Your task to perform on an android device: turn smart compose on in the gmail app Image 0: 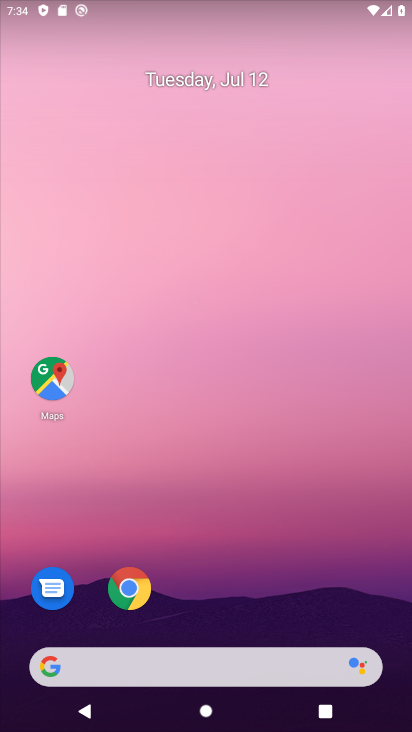
Step 0: drag from (200, 600) to (215, 102)
Your task to perform on an android device: turn smart compose on in the gmail app Image 1: 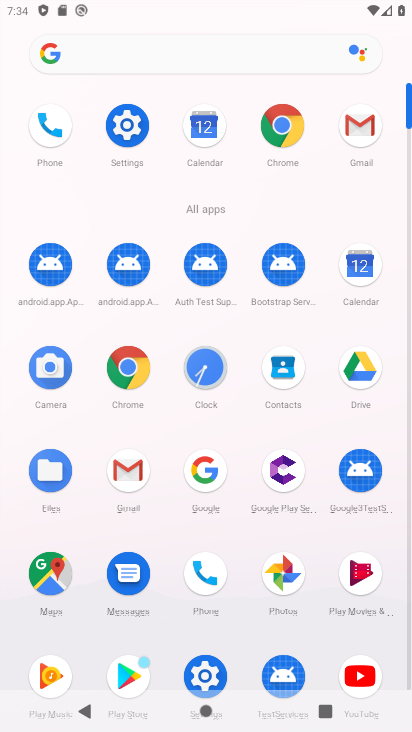
Step 1: click (352, 144)
Your task to perform on an android device: turn smart compose on in the gmail app Image 2: 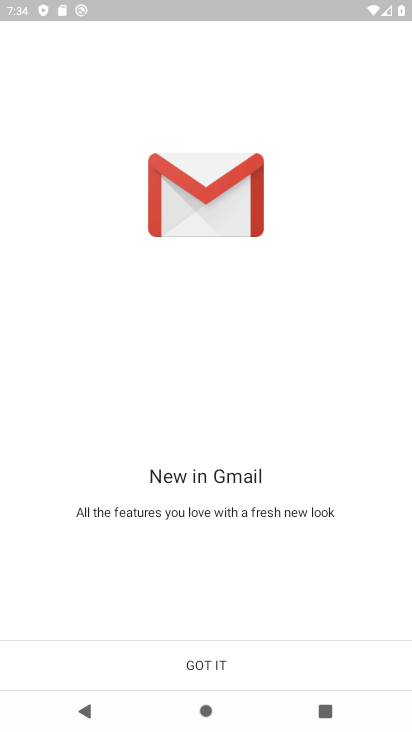
Step 2: click (193, 670)
Your task to perform on an android device: turn smart compose on in the gmail app Image 3: 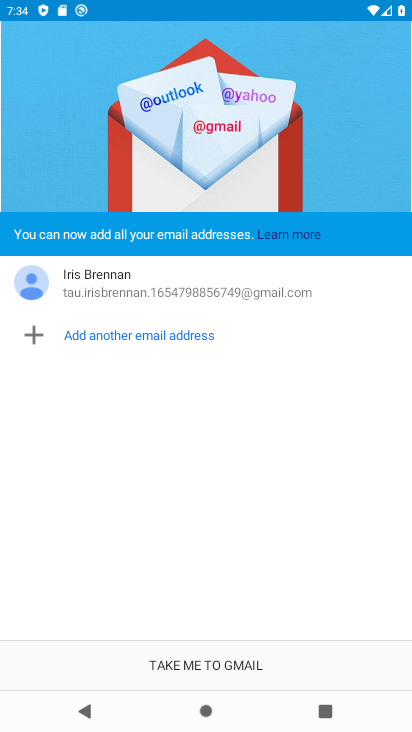
Step 3: click (250, 668)
Your task to perform on an android device: turn smart compose on in the gmail app Image 4: 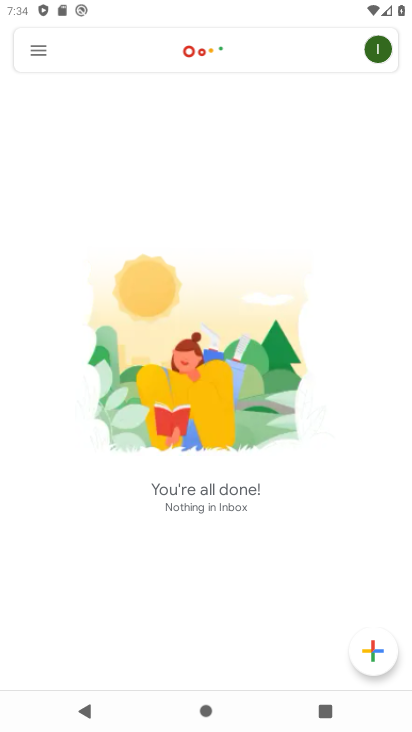
Step 4: click (50, 48)
Your task to perform on an android device: turn smart compose on in the gmail app Image 5: 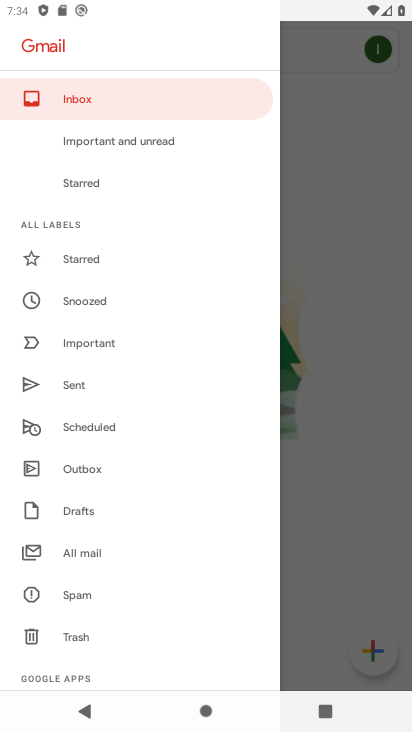
Step 5: drag from (136, 643) to (190, 186)
Your task to perform on an android device: turn smart compose on in the gmail app Image 6: 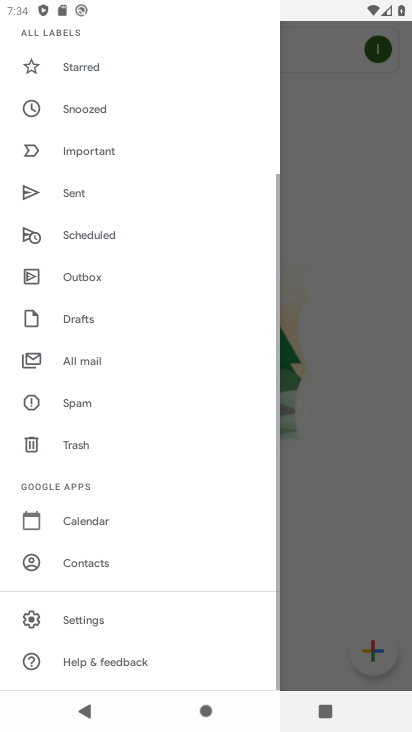
Step 6: click (90, 625)
Your task to perform on an android device: turn smart compose on in the gmail app Image 7: 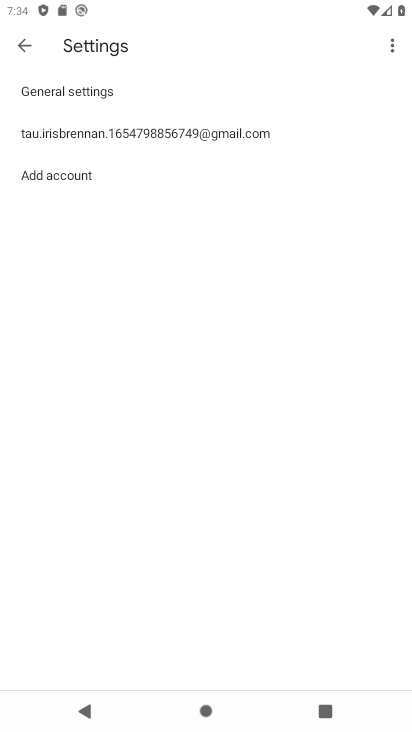
Step 7: click (118, 135)
Your task to perform on an android device: turn smart compose on in the gmail app Image 8: 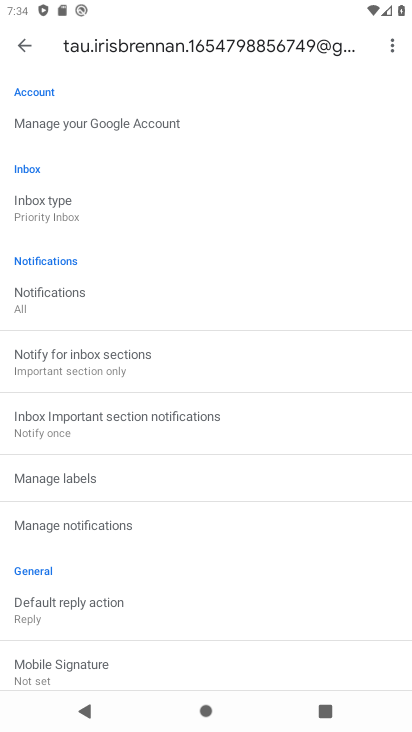
Step 8: task complete